Your task to perform on an android device: Search for pizza restaurants on Maps Image 0: 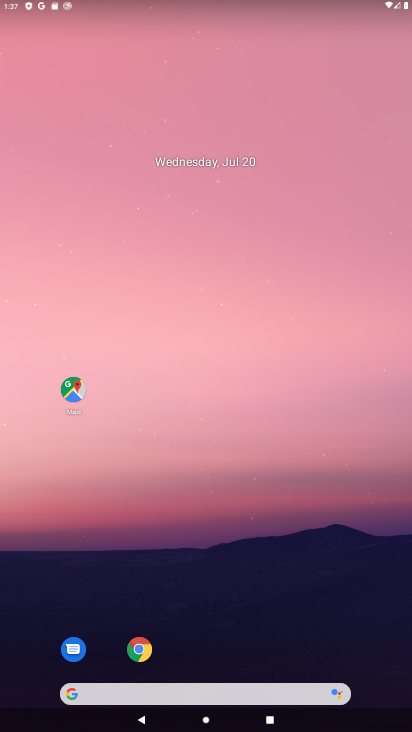
Step 0: drag from (268, 648) to (258, 15)
Your task to perform on an android device: Search for pizza restaurants on Maps Image 1: 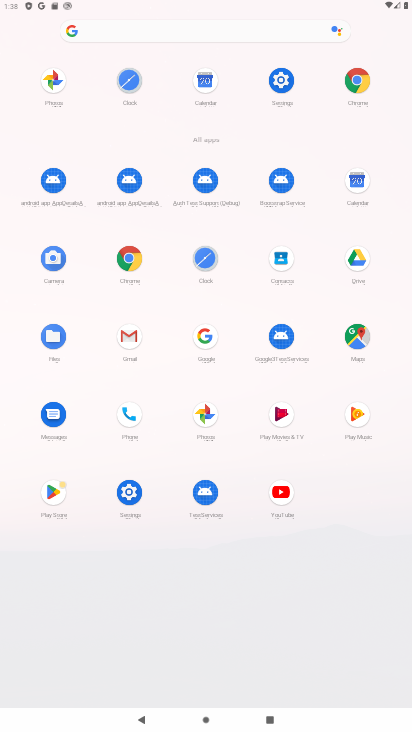
Step 1: click (362, 343)
Your task to perform on an android device: Search for pizza restaurants on Maps Image 2: 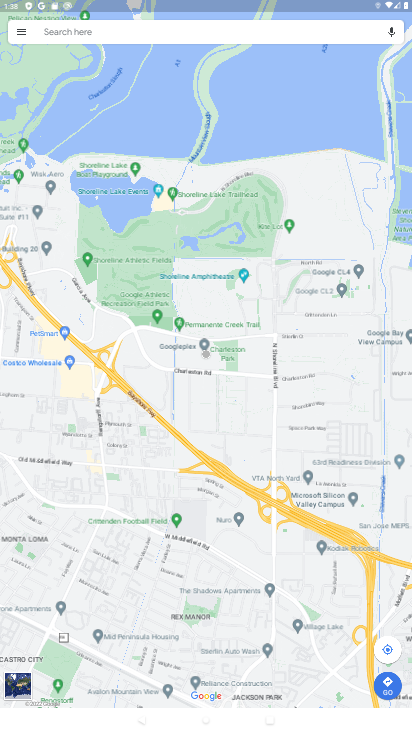
Step 2: click (180, 32)
Your task to perform on an android device: Search for pizza restaurants on Maps Image 3: 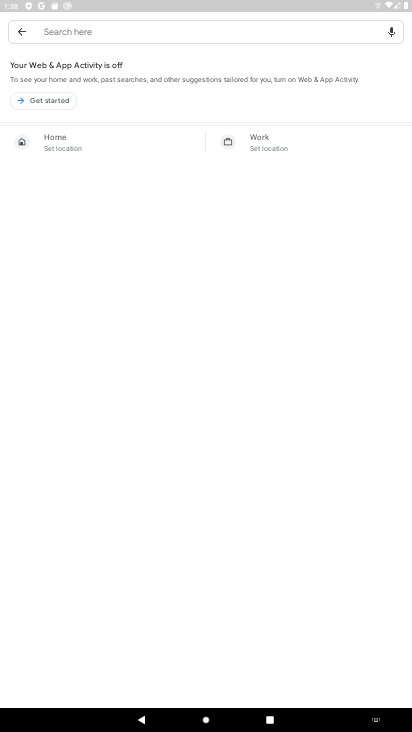
Step 3: click (202, 36)
Your task to perform on an android device: Search for pizza restaurants on Maps Image 4: 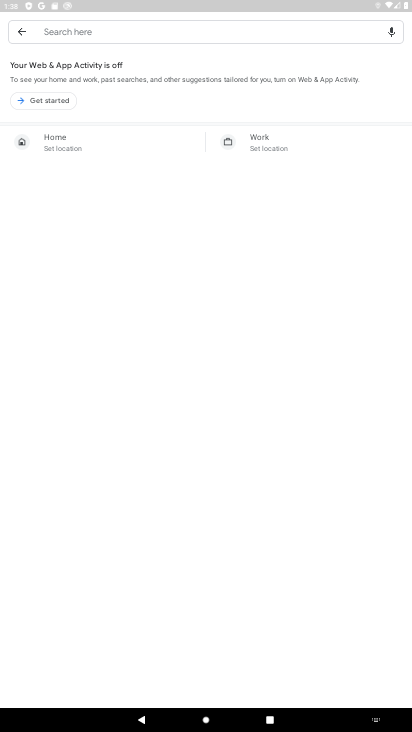
Step 4: type "pizza restaurants"
Your task to perform on an android device: Search for pizza restaurants on Maps Image 5: 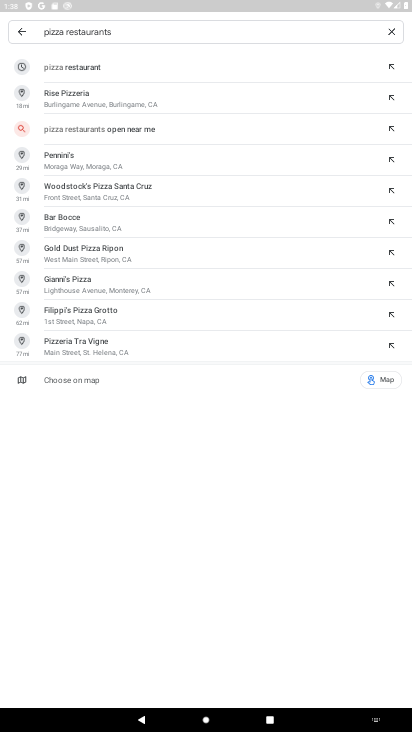
Step 5: click (238, 67)
Your task to perform on an android device: Search for pizza restaurants on Maps Image 6: 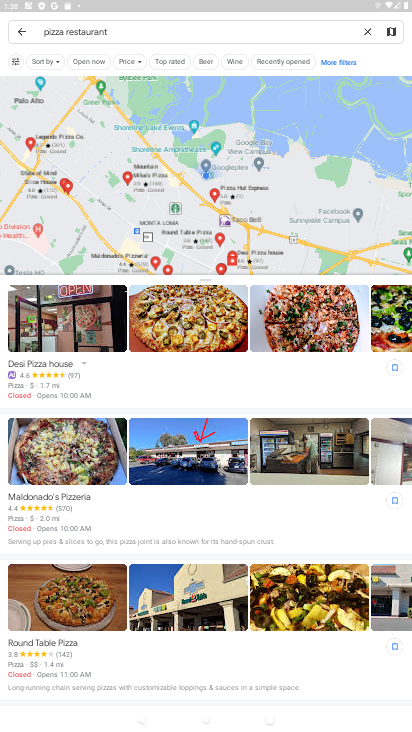
Step 6: task complete